Your task to perform on an android device: turn on the 12-hour format for clock Image 0: 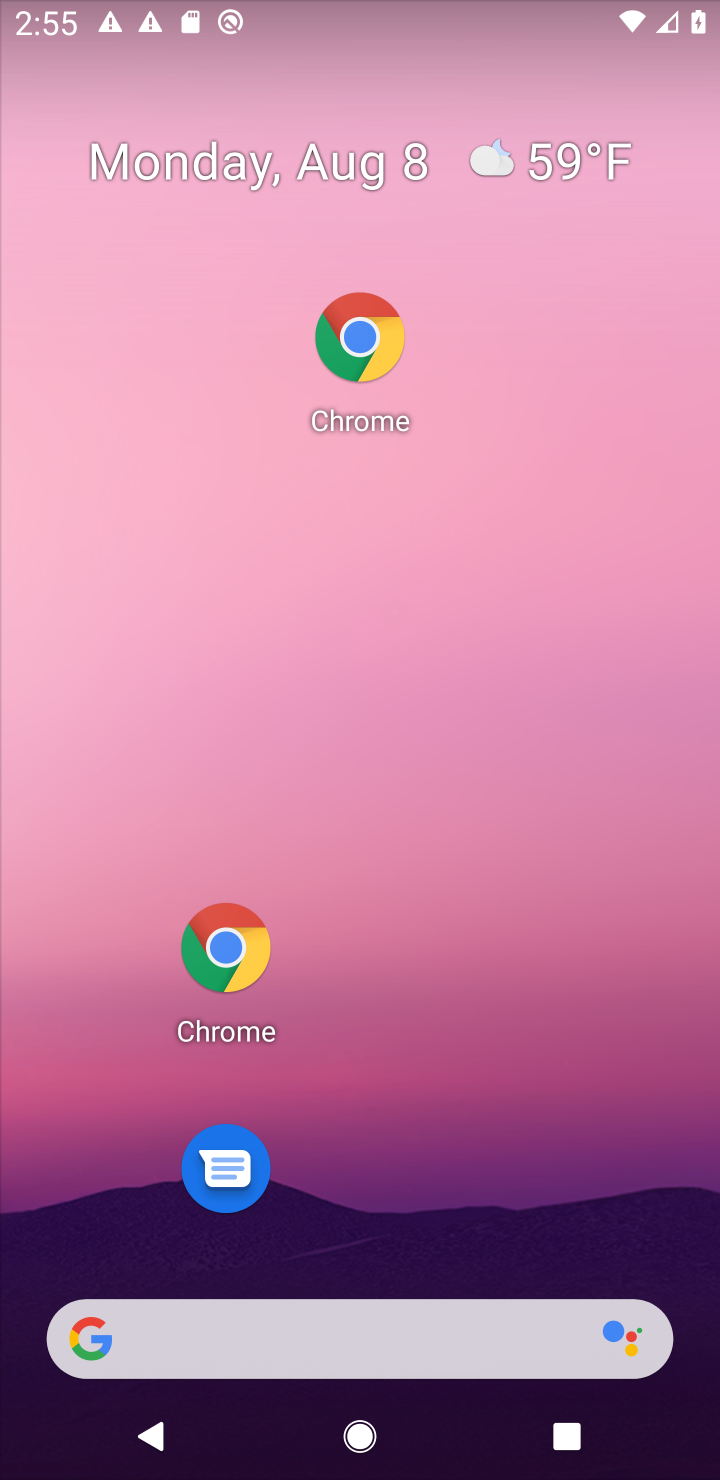
Step 0: drag from (412, 1282) to (446, 203)
Your task to perform on an android device: turn on the 12-hour format for clock Image 1: 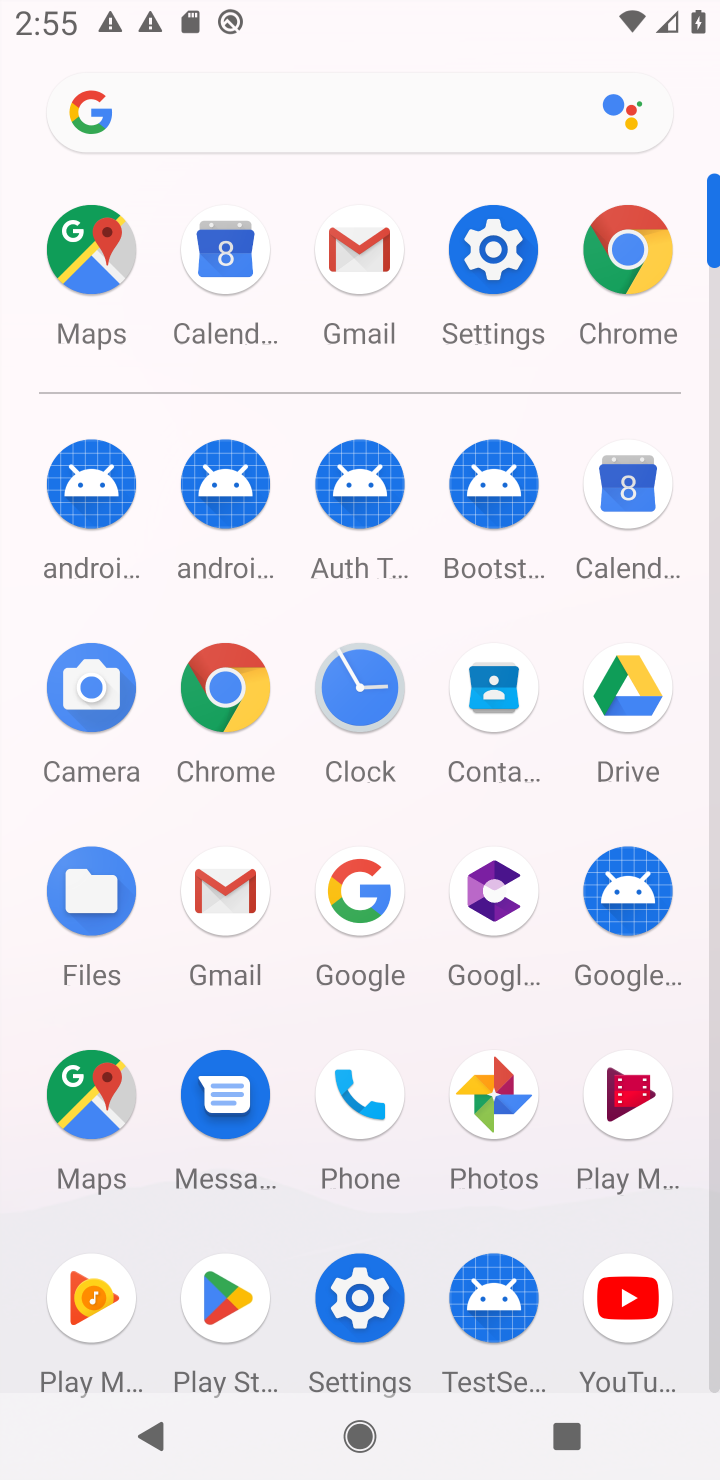
Step 1: click (369, 734)
Your task to perform on an android device: turn on the 12-hour format for clock Image 2: 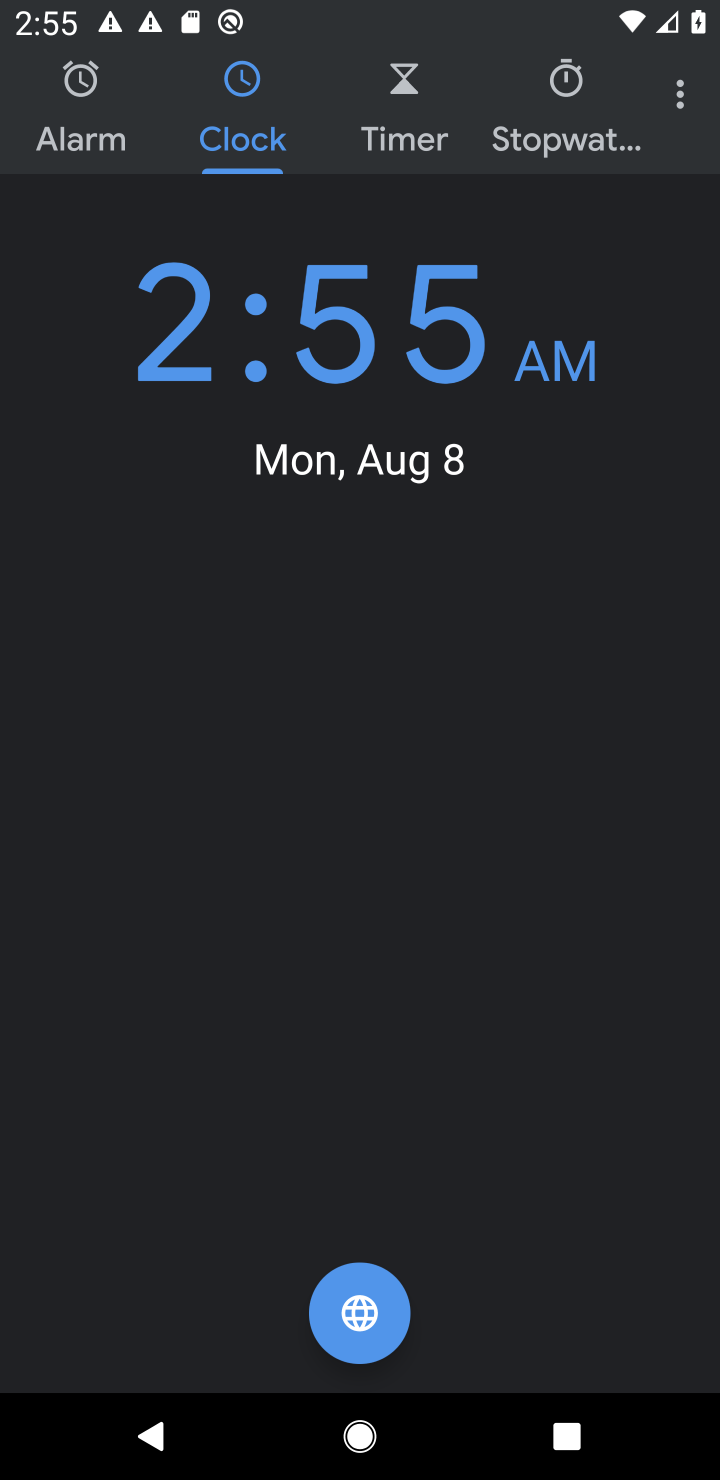
Step 2: click (708, 90)
Your task to perform on an android device: turn on the 12-hour format for clock Image 3: 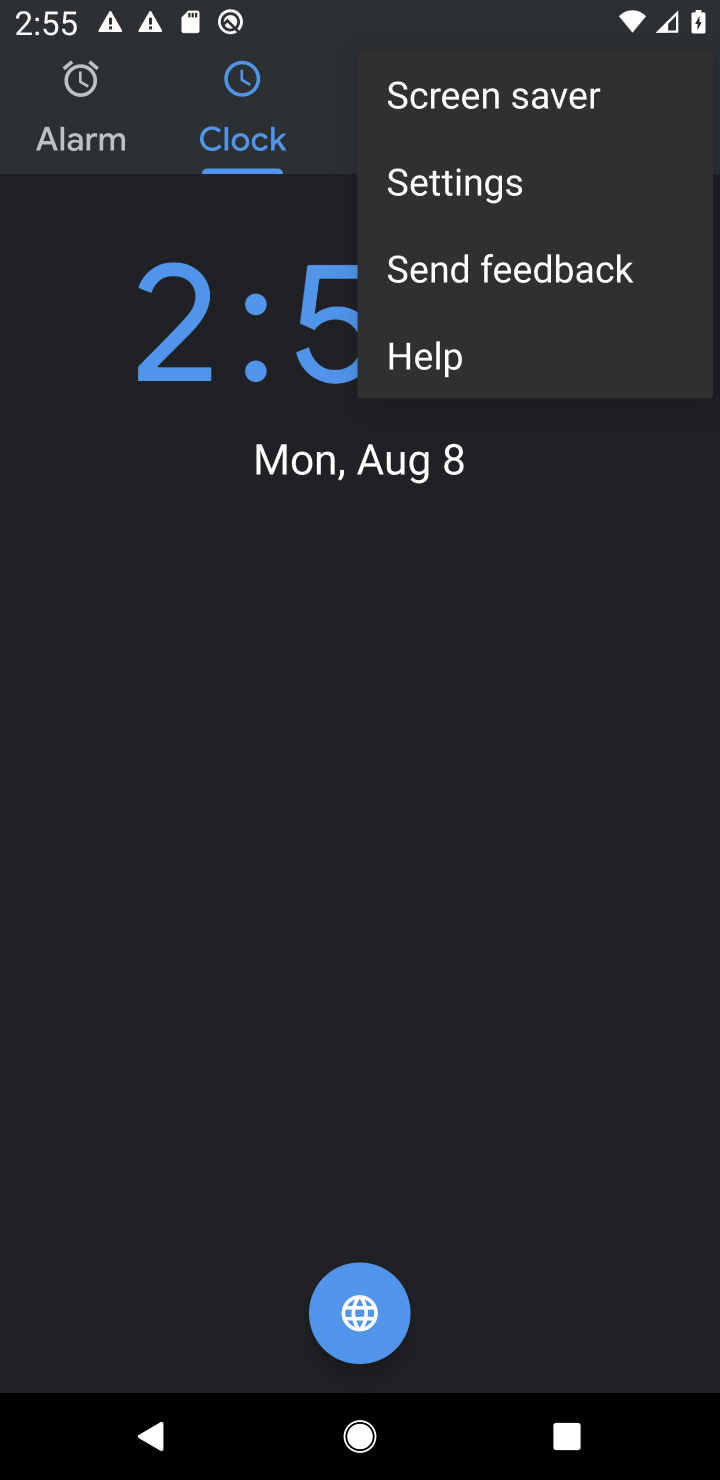
Step 3: click (566, 214)
Your task to perform on an android device: turn on the 12-hour format for clock Image 4: 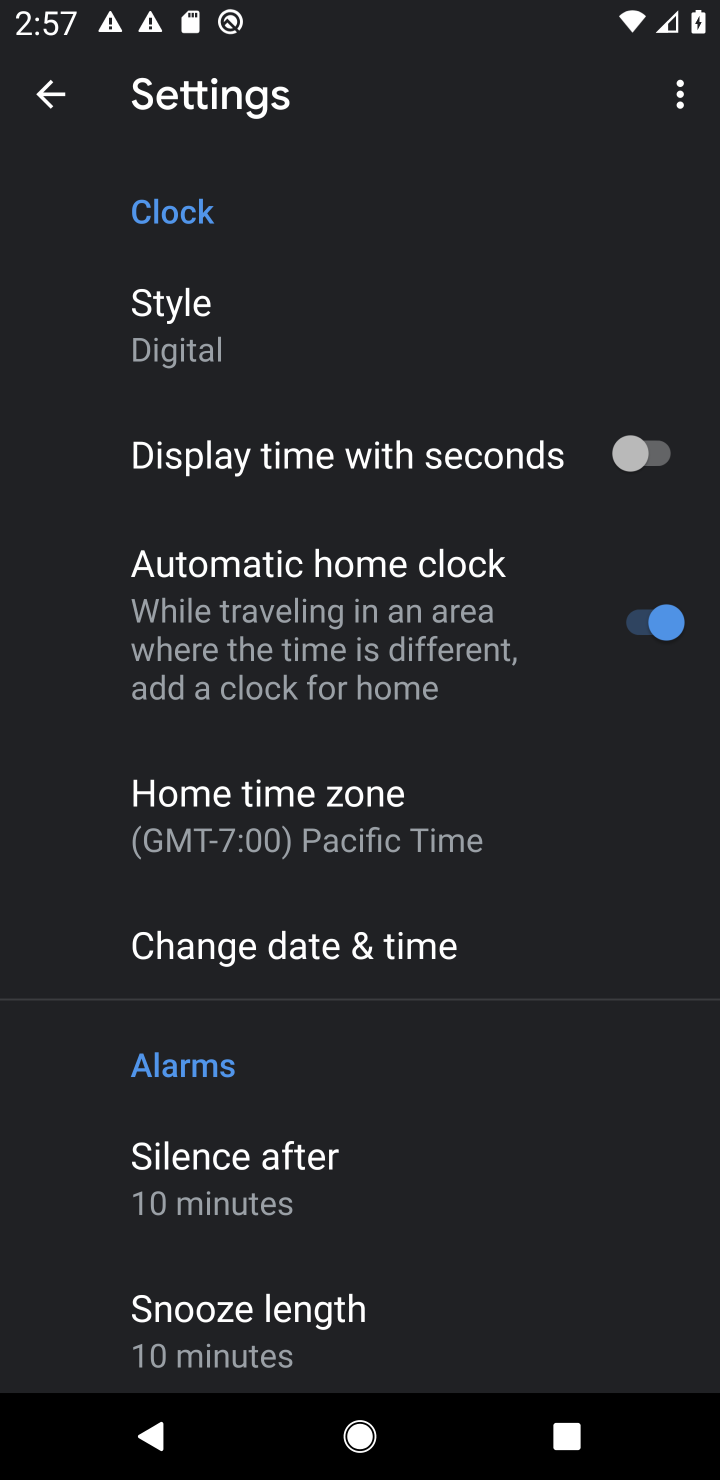
Step 4: task complete